Your task to perform on an android device: Go to notification settings Image 0: 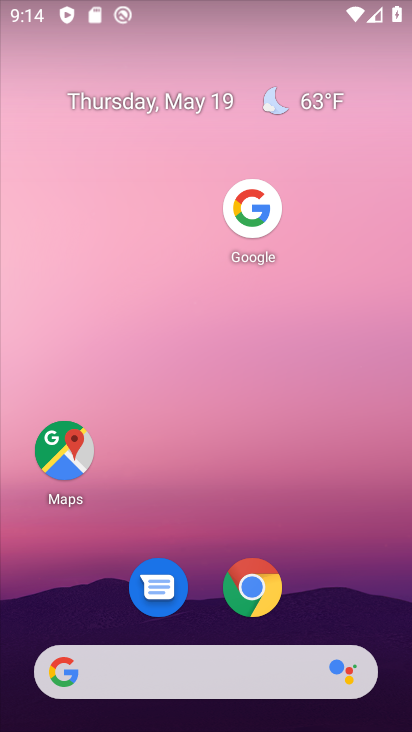
Step 0: drag from (203, 640) to (79, 31)
Your task to perform on an android device: Go to notification settings Image 1: 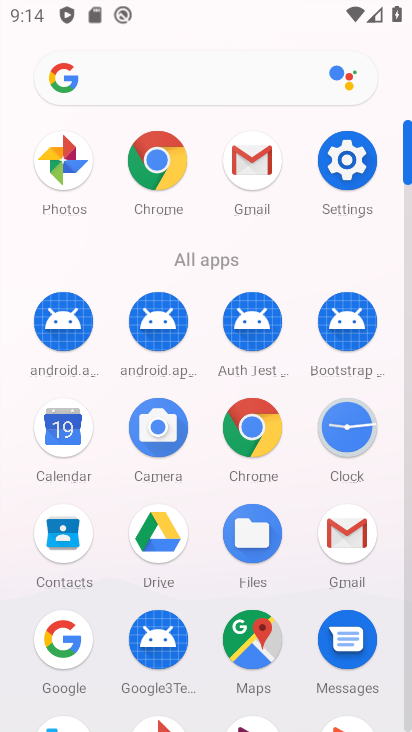
Step 1: click (354, 155)
Your task to perform on an android device: Go to notification settings Image 2: 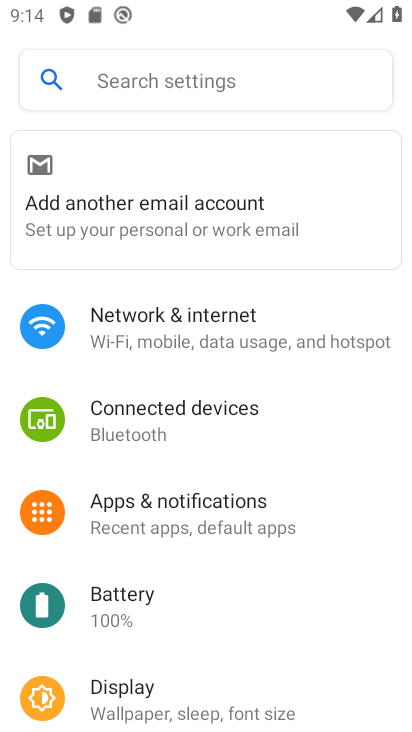
Step 2: click (154, 510)
Your task to perform on an android device: Go to notification settings Image 3: 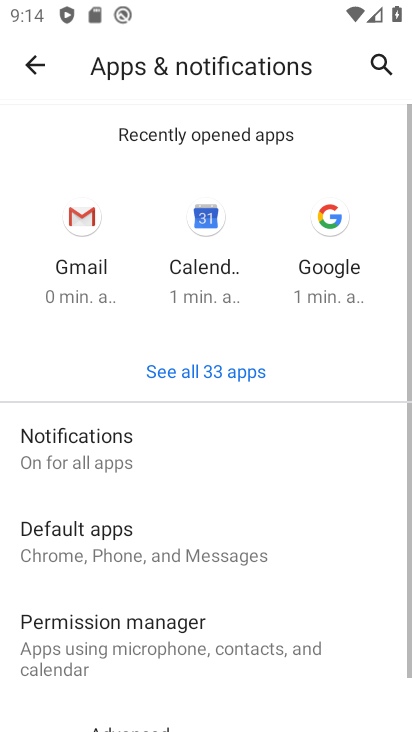
Step 3: click (71, 448)
Your task to perform on an android device: Go to notification settings Image 4: 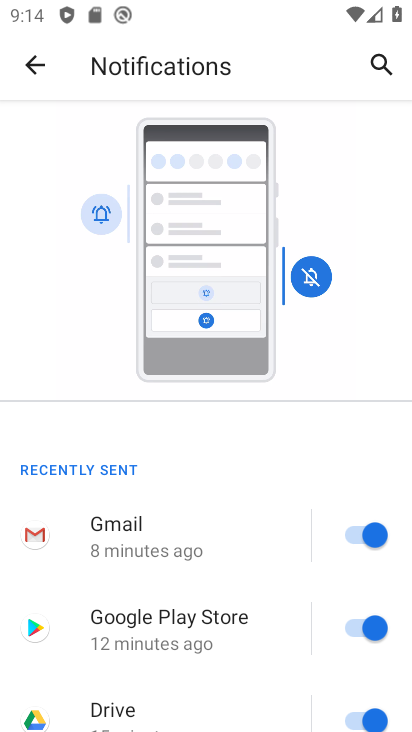
Step 4: task complete